Your task to perform on an android device: Go to Yahoo.com Image 0: 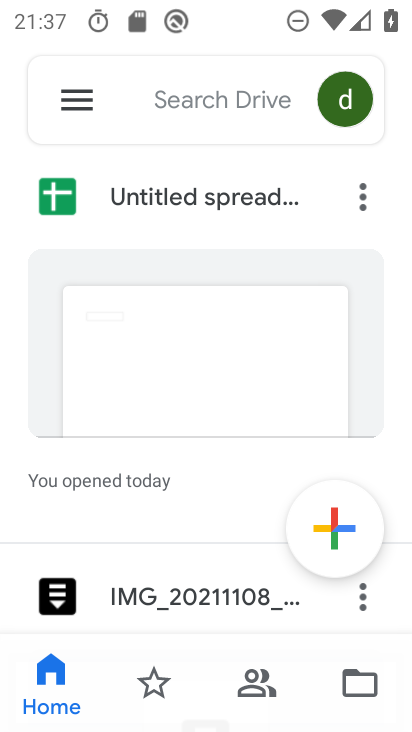
Step 0: press home button
Your task to perform on an android device: Go to Yahoo.com Image 1: 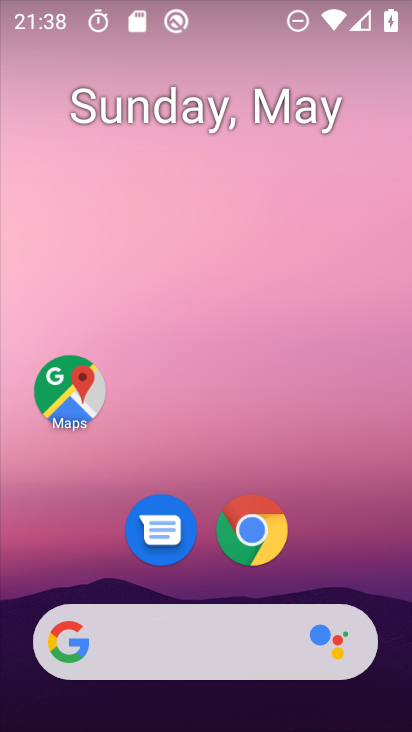
Step 1: drag from (268, 669) to (192, 46)
Your task to perform on an android device: Go to Yahoo.com Image 2: 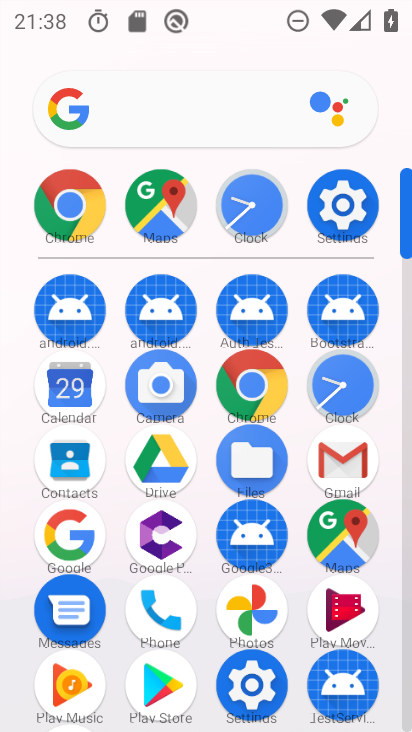
Step 2: click (91, 191)
Your task to perform on an android device: Go to Yahoo.com Image 3: 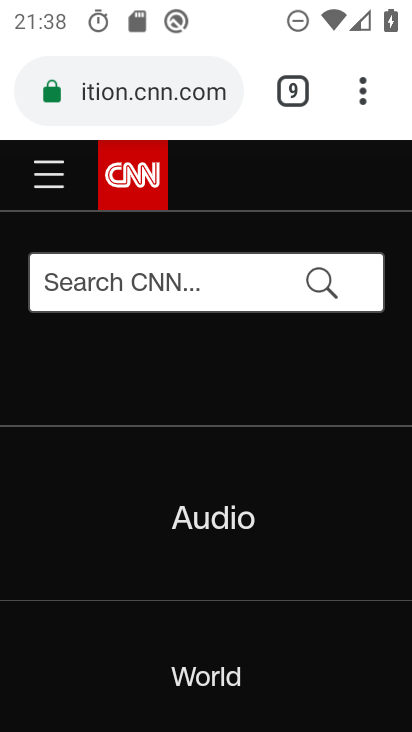
Step 3: click (209, 87)
Your task to perform on an android device: Go to Yahoo.com Image 4: 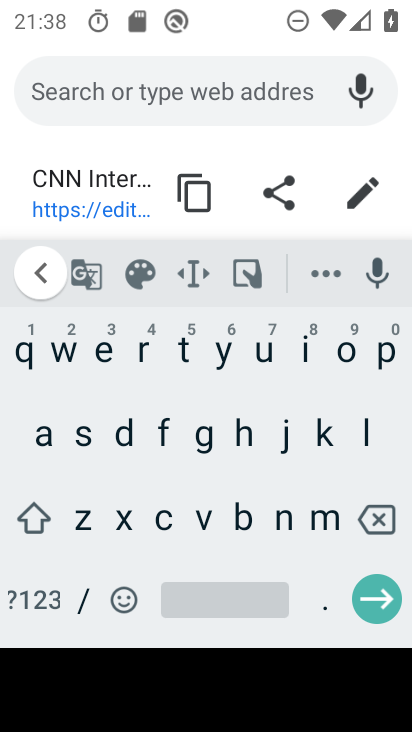
Step 4: click (226, 355)
Your task to perform on an android device: Go to Yahoo.com Image 5: 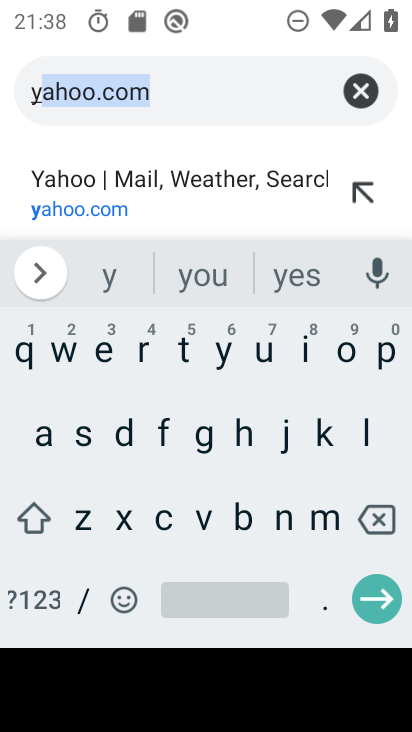
Step 5: click (196, 93)
Your task to perform on an android device: Go to Yahoo.com Image 6: 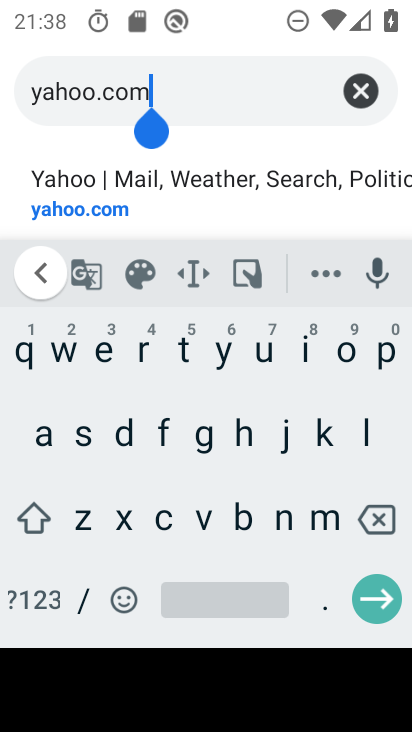
Step 6: click (389, 594)
Your task to perform on an android device: Go to Yahoo.com Image 7: 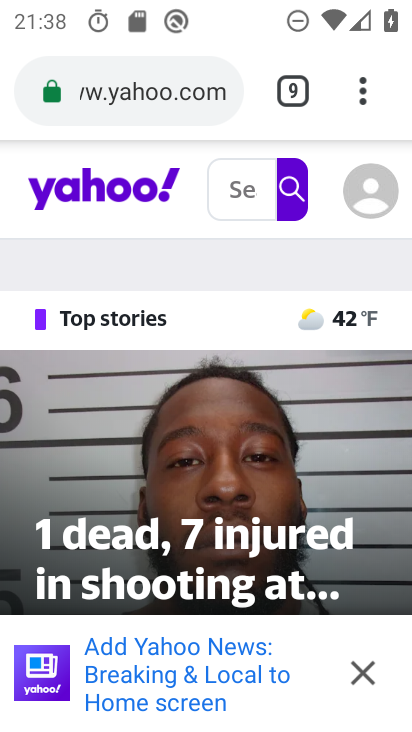
Step 7: task complete